Your task to perform on an android device: toggle javascript in the chrome app Image 0: 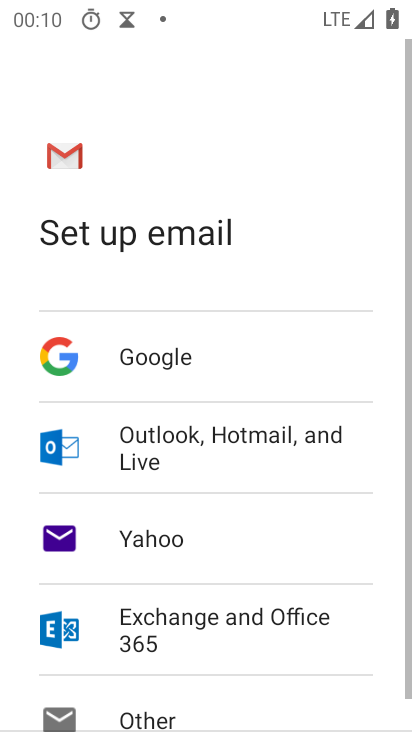
Step 0: press home button
Your task to perform on an android device: toggle javascript in the chrome app Image 1: 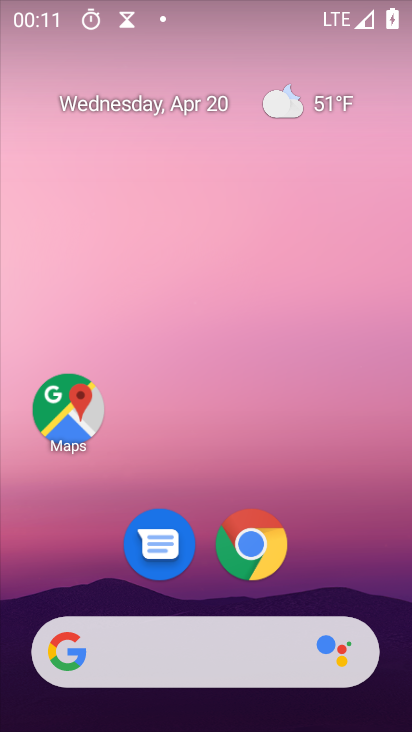
Step 1: click (245, 558)
Your task to perform on an android device: toggle javascript in the chrome app Image 2: 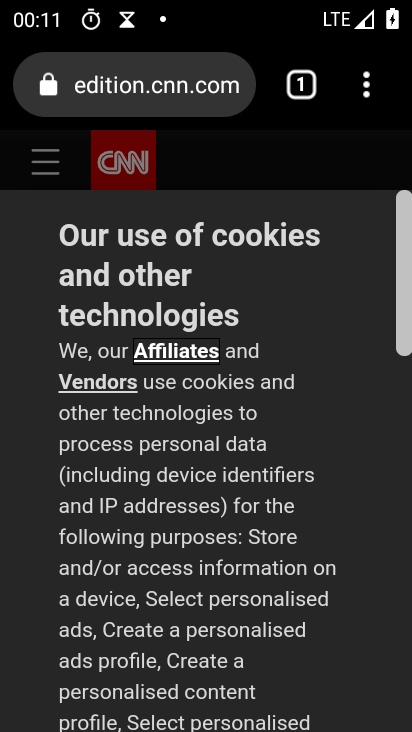
Step 2: click (376, 90)
Your task to perform on an android device: toggle javascript in the chrome app Image 3: 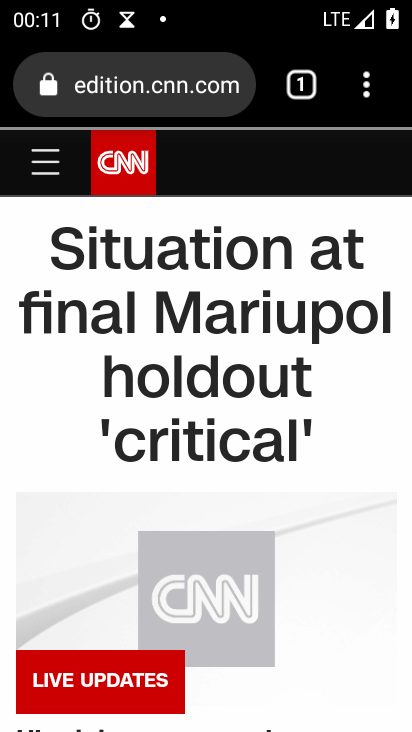
Step 3: click (373, 90)
Your task to perform on an android device: toggle javascript in the chrome app Image 4: 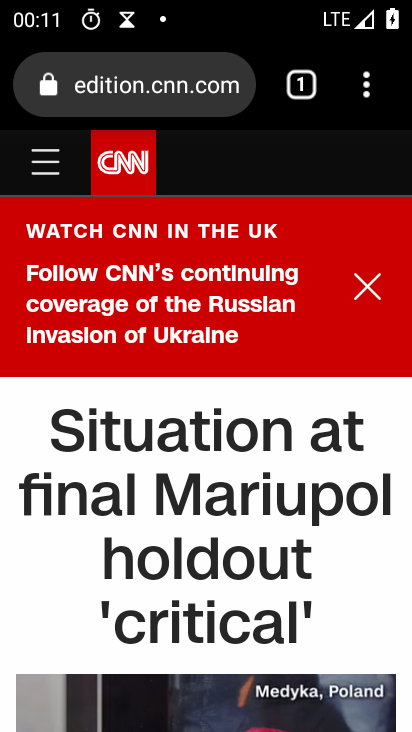
Step 4: click (371, 92)
Your task to perform on an android device: toggle javascript in the chrome app Image 5: 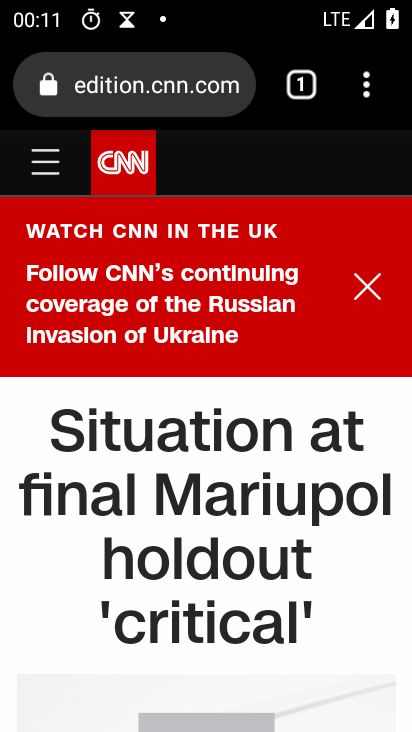
Step 5: click (367, 95)
Your task to perform on an android device: toggle javascript in the chrome app Image 6: 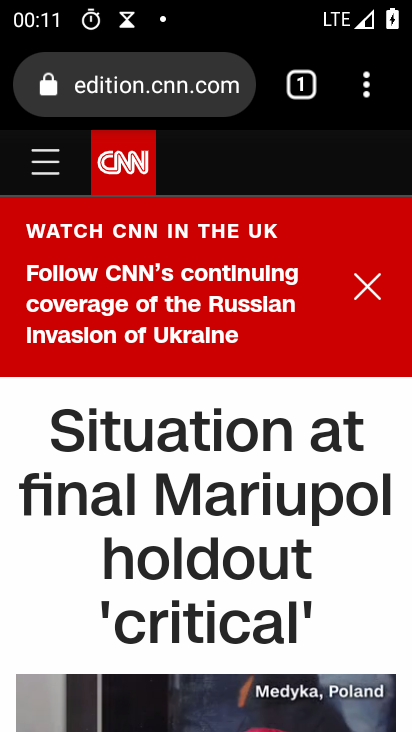
Step 6: click (360, 90)
Your task to perform on an android device: toggle javascript in the chrome app Image 7: 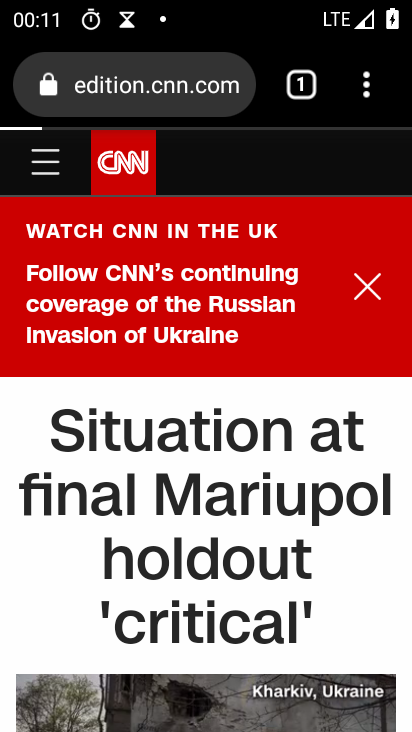
Step 7: click (360, 90)
Your task to perform on an android device: toggle javascript in the chrome app Image 8: 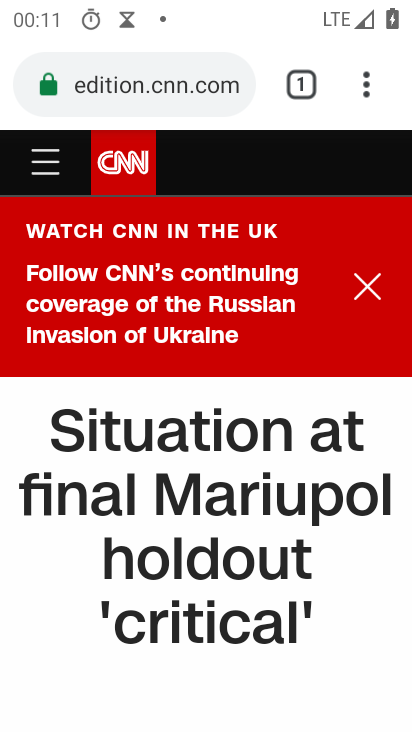
Step 8: click (355, 91)
Your task to perform on an android device: toggle javascript in the chrome app Image 9: 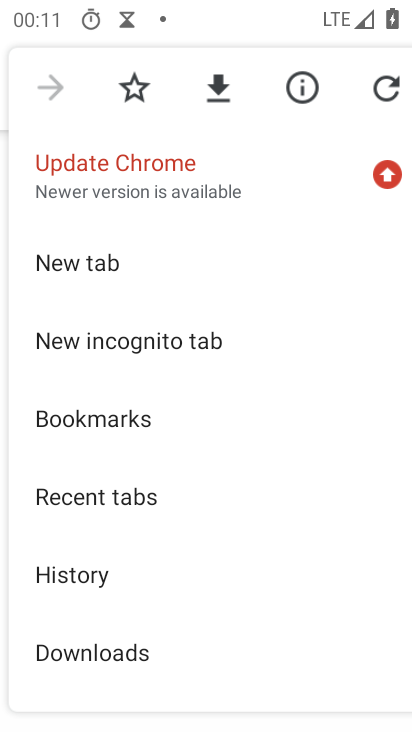
Step 9: drag from (241, 630) to (237, 412)
Your task to perform on an android device: toggle javascript in the chrome app Image 10: 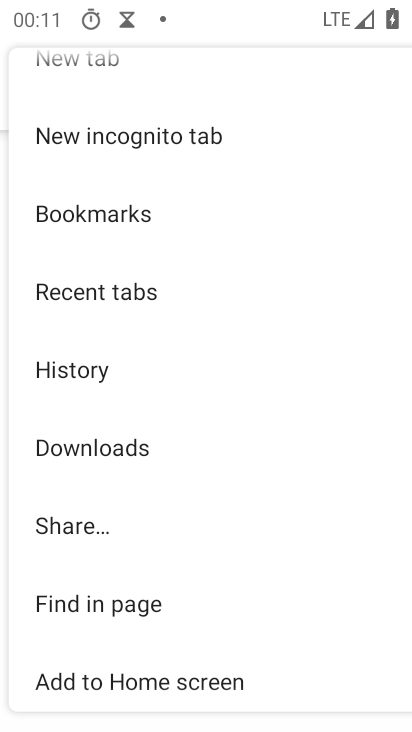
Step 10: drag from (107, 650) to (106, 516)
Your task to perform on an android device: toggle javascript in the chrome app Image 11: 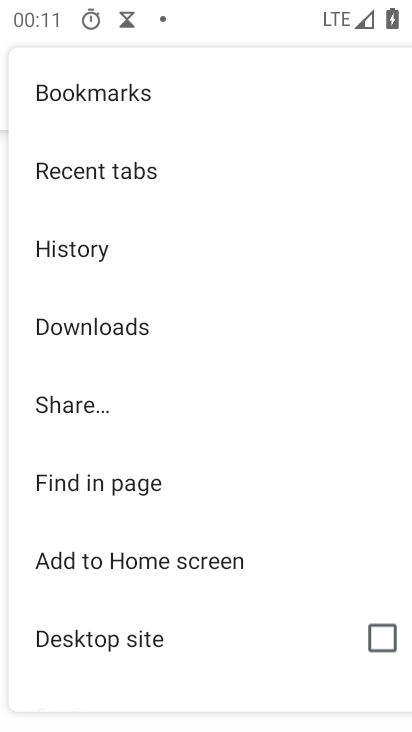
Step 11: drag from (67, 696) to (66, 547)
Your task to perform on an android device: toggle javascript in the chrome app Image 12: 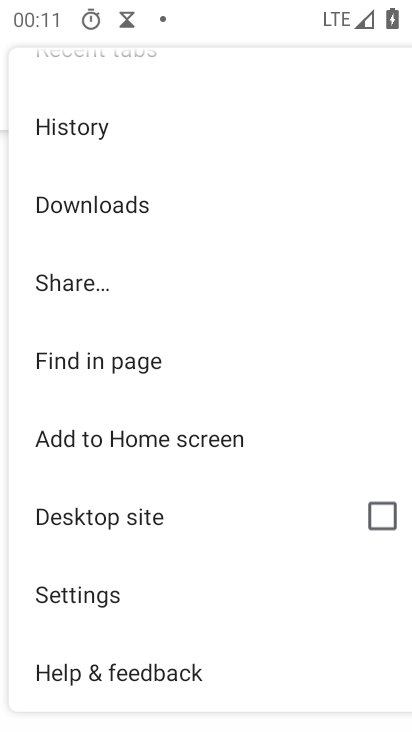
Step 12: click (95, 613)
Your task to perform on an android device: toggle javascript in the chrome app Image 13: 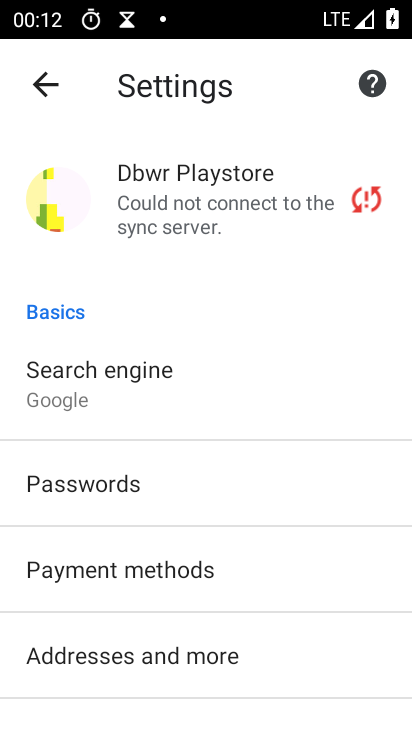
Step 13: drag from (214, 576) to (245, 412)
Your task to perform on an android device: toggle javascript in the chrome app Image 14: 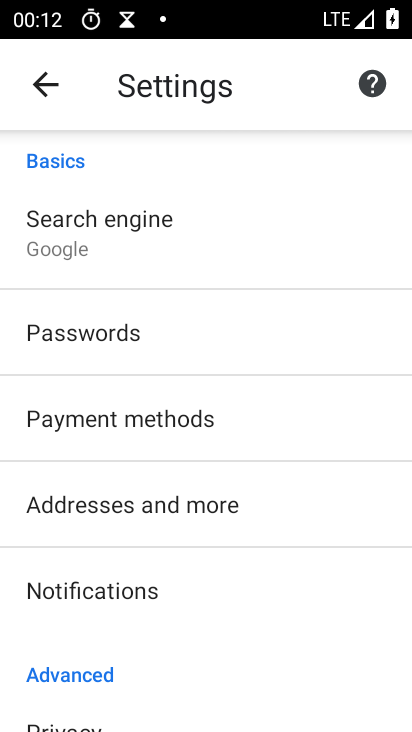
Step 14: drag from (214, 556) to (218, 437)
Your task to perform on an android device: toggle javascript in the chrome app Image 15: 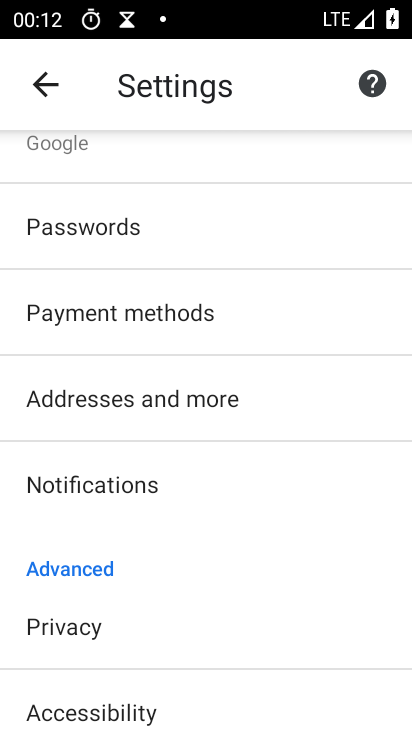
Step 15: drag from (201, 509) to (224, 356)
Your task to perform on an android device: toggle javascript in the chrome app Image 16: 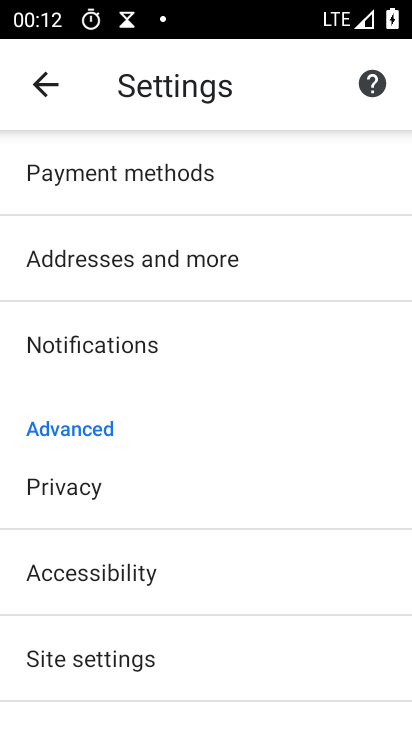
Step 16: click (125, 649)
Your task to perform on an android device: toggle javascript in the chrome app Image 17: 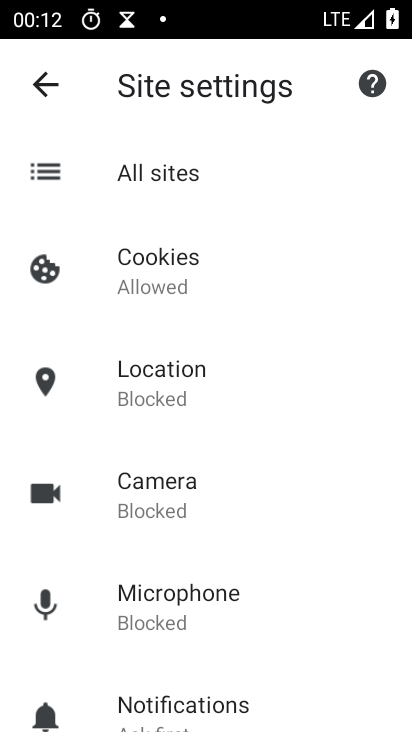
Step 17: drag from (158, 615) to (188, 508)
Your task to perform on an android device: toggle javascript in the chrome app Image 18: 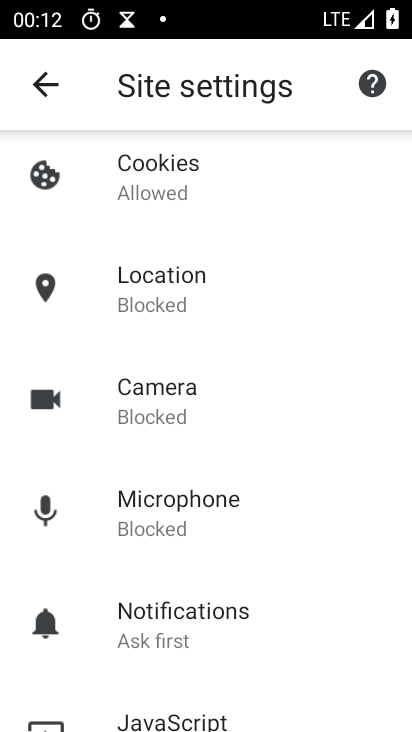
Step 18: drag from (166, 583) to (197, 490)
Your task to perform on an android device: toggle javascript in the chrome app Image 19: 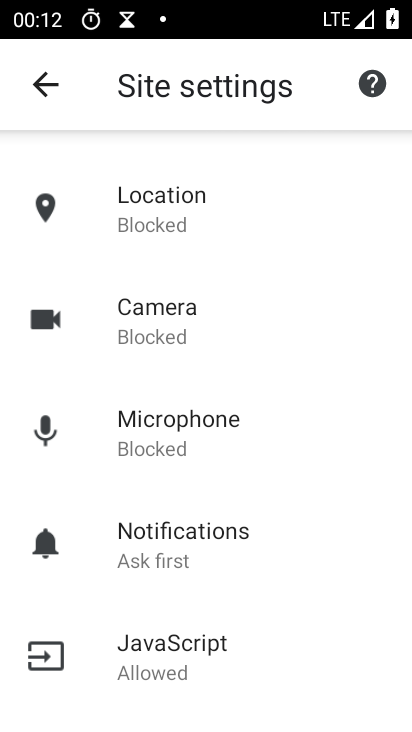
Step 19: click (160, 639)
Your task to perform on an android device: toggle javascript in the chrome app Image 20: 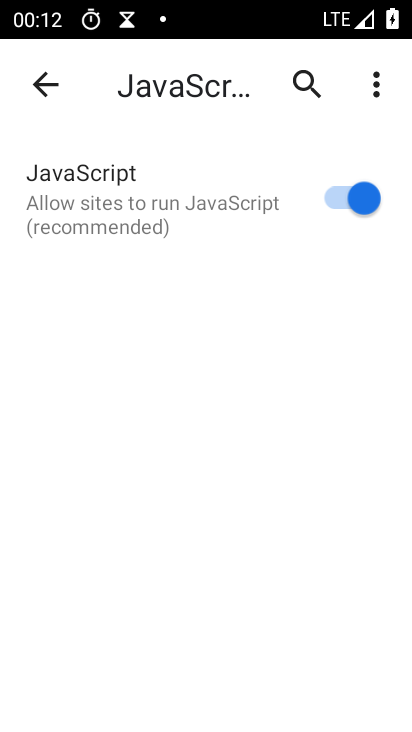
Step 20: click (319, 197)
Your task to perform on an android device: toggle javascript in the chrome app Image 21: 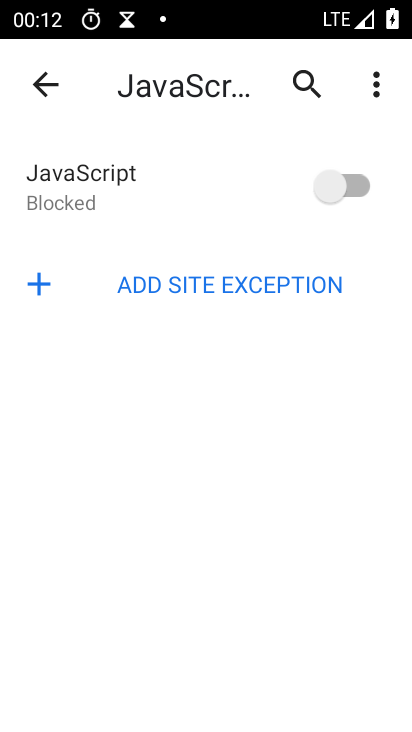
Step 21: task complete